Your task to perform on an android device: Go to notification settings Image 0: 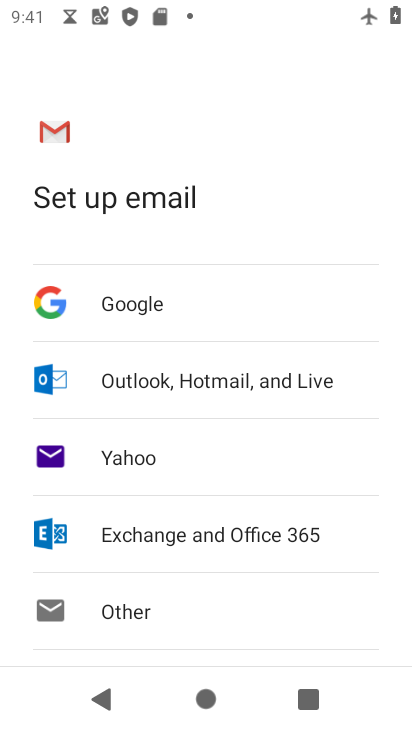
Step 0: drag from (301, 528) to (307, 491)
Your task to perform on an android device: Go to notification settings Image 1: 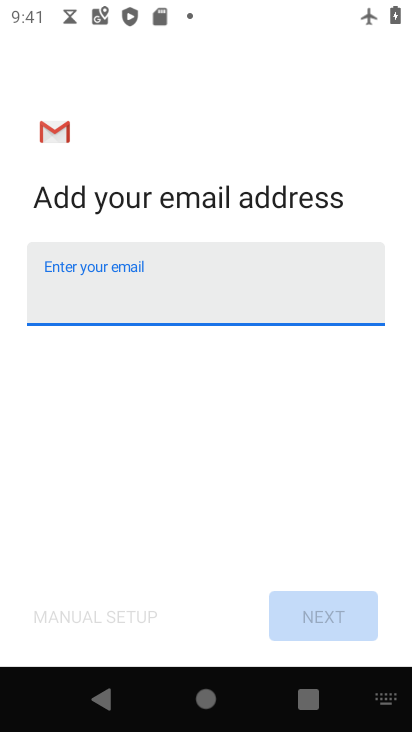
Step 1: press home button
Your task to perform on an android device: Go to notification settings Image 2: 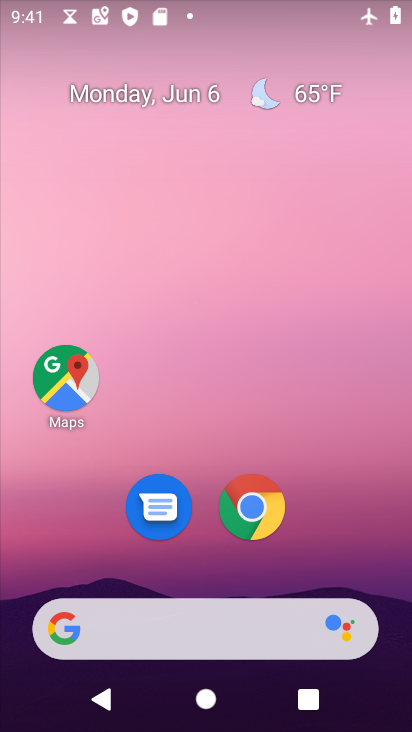
Step 2: drag from (332, 584) to (295, 229)
Your task to perform on an android device: Go to notification settings Image 3: 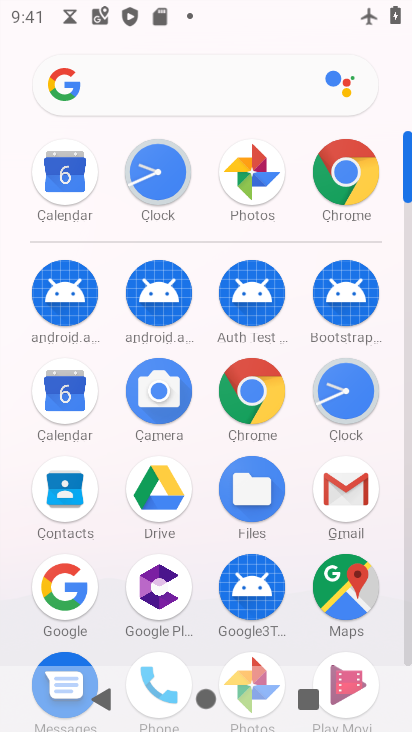
Step 3: drag from (207, 591) to (205, 390)
Your task to perform on an android device: Go to notification settings Image 4: 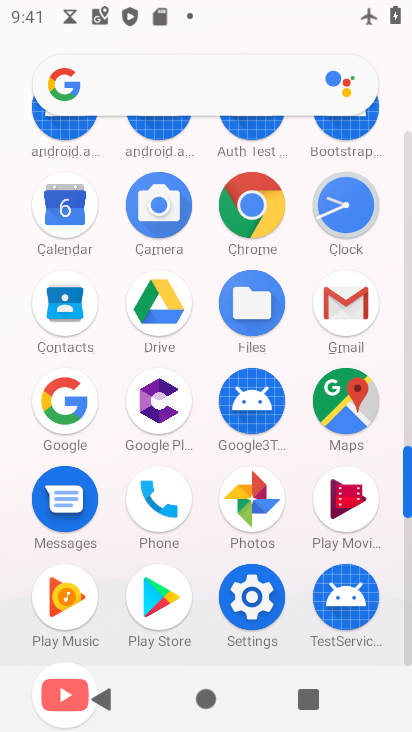
Step 4: click (244, 588)
Your task to perform on an android device: Go to notification settings Image 5: 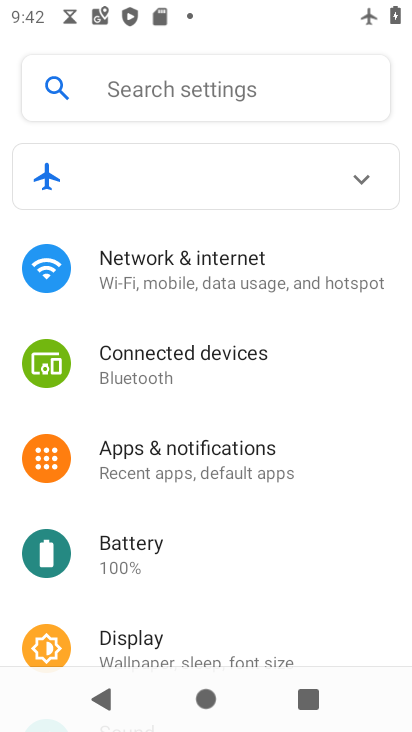
Step 5: click (170, 464)
Your task to perform on an android device: Go to notification settings Image 6: 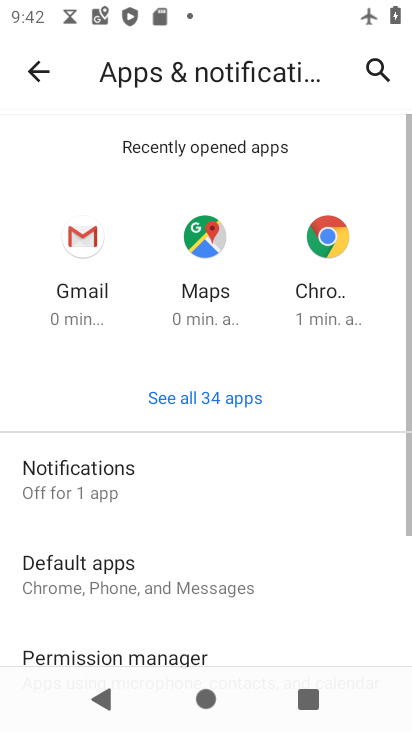
Step 6: click (118, 456)
Your task to perform on an android device: Go to notification settings Image 7: 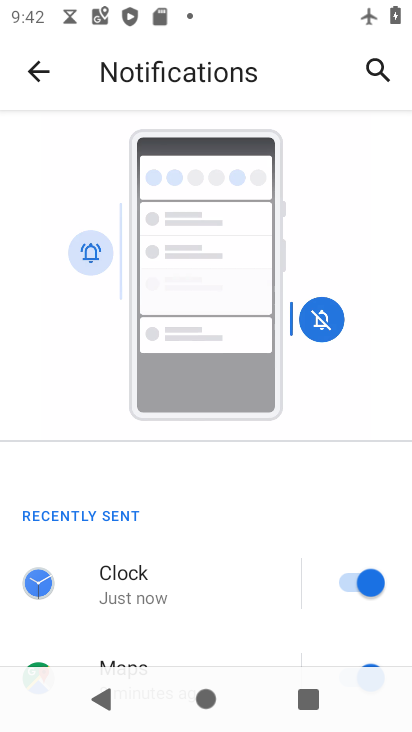
Step 7: task complete